Your task to perform on an android device: turn off location Image 0: 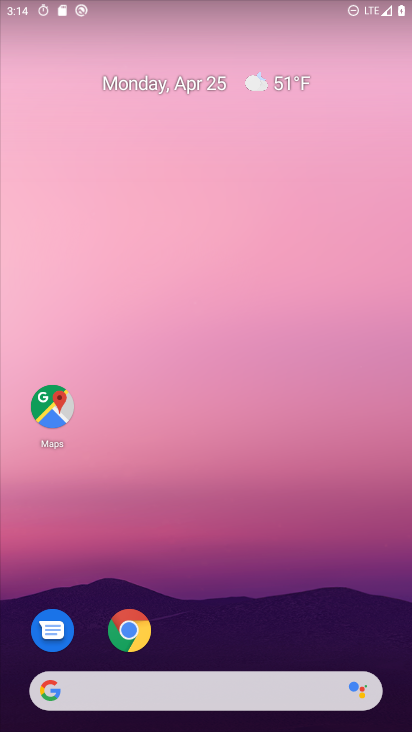
Step 0: drag from (218, 619) to (241, 105)
Your task to perform on an android device: turn off location Image 1: 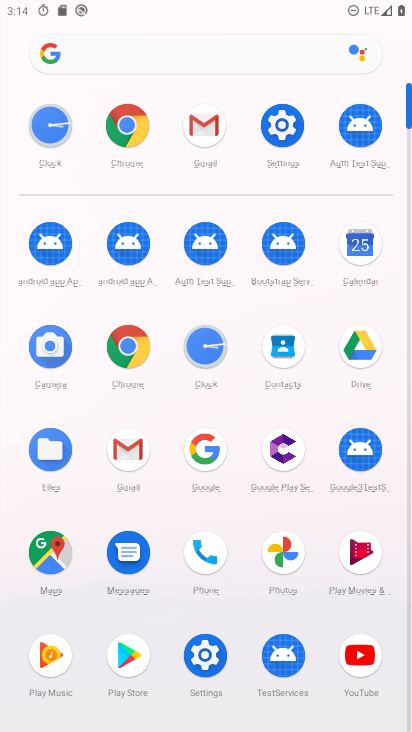
Step 1: click (198, 659)
Your task to perform on an android device: turn off location Image 2: 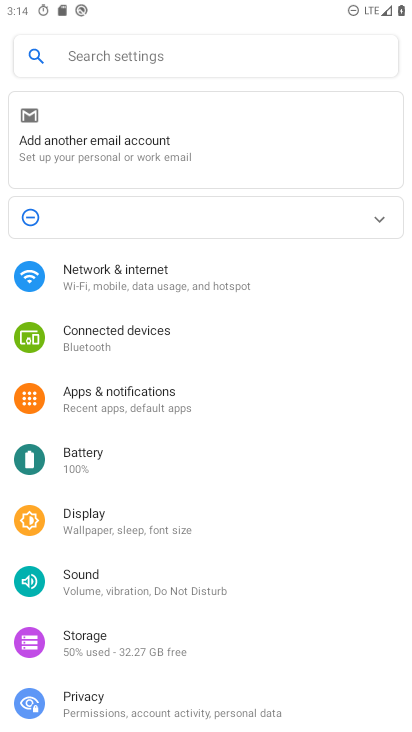
Step 2: drag from (208, 644) to (255, 290)
Your task to perform on an android device: turn off location Image 3: 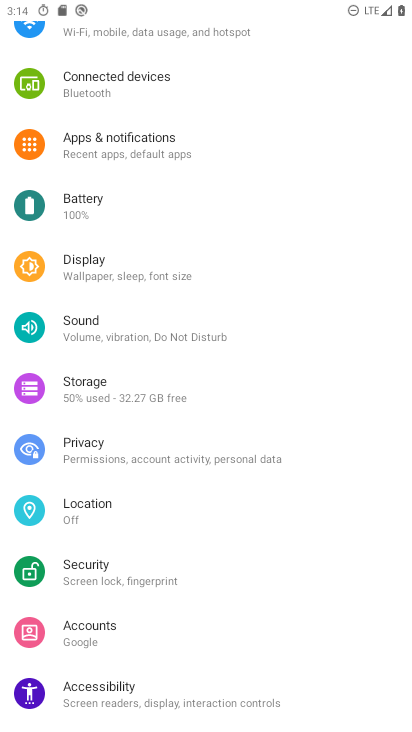
Step 3: click (101, 496)
Your task to perform on an android device: turn off location Image 4: 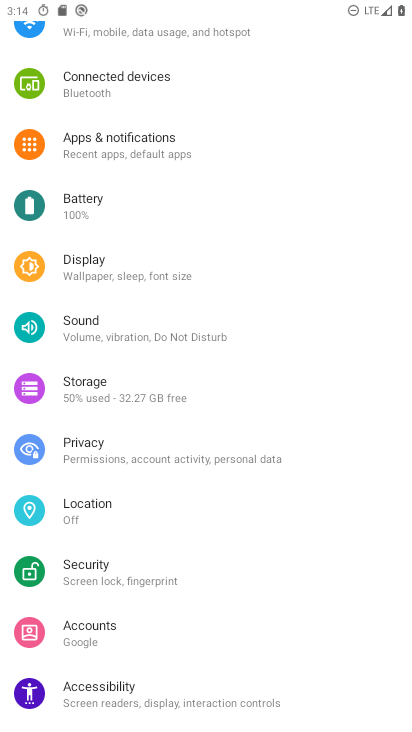
Step 4: click (103, 511)
Your task to perform on an android device: turn off location Image 5: 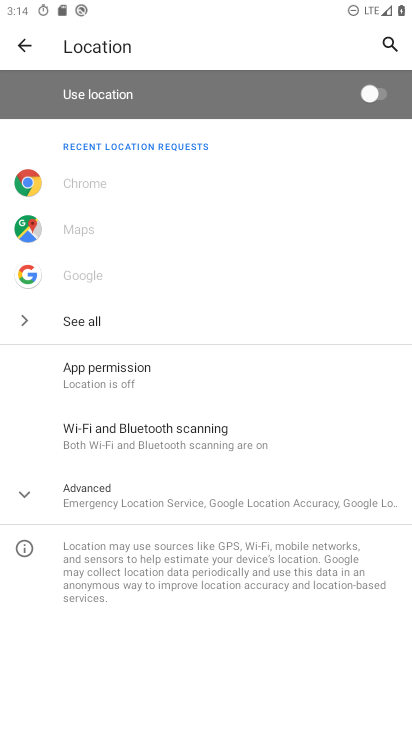
Step 5: task complete